Your task to perform on an android device: Open battery settings Image 0: 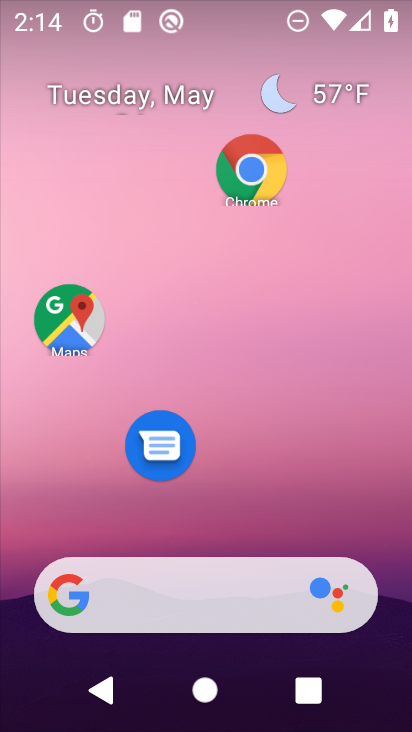
Step 0: drag from (232, 721) to (194, 100)
Your task to perform on an android device: Open battery settings Image 1: 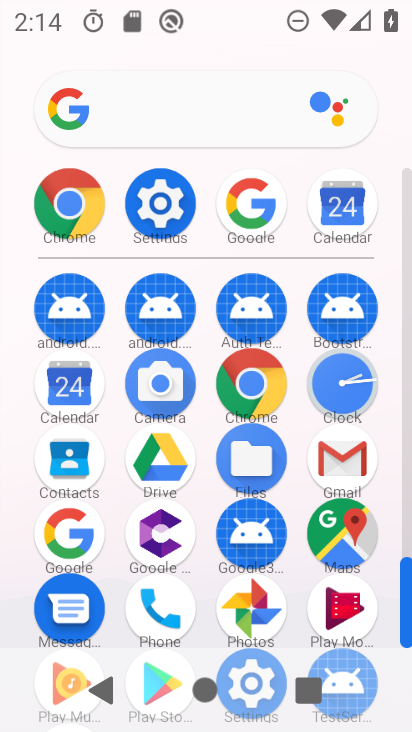
Step 1: click (157, 206)
Your task to perform on an android device: Open battery settings Image 2: 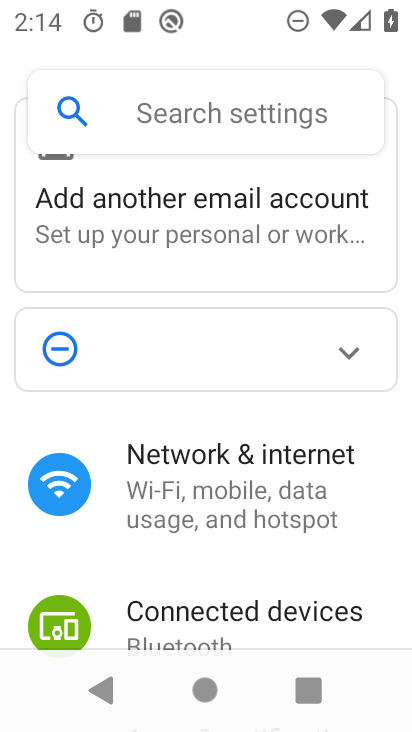
Step 2: drag from (185, 605) to (174, 227)
Your task to perform on an android device: Open battery settings Image 3: 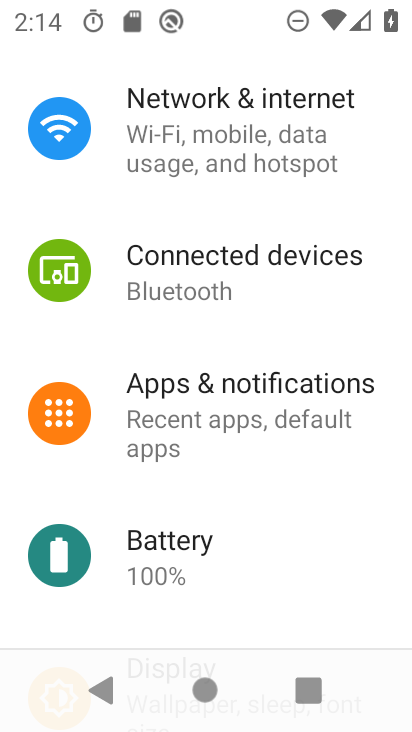
Step 3: click (151, 539)
Your task to perform on an android device: Open battery settings Image 4: 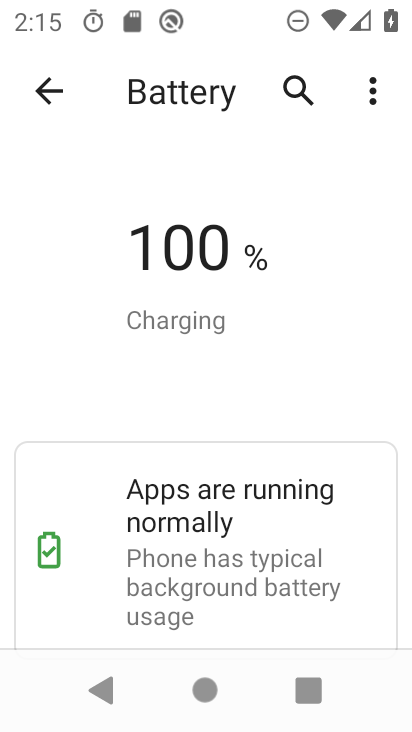
Step 4: task complete